Your task to perform on an android device: toggle notifications settings in the gmail app Image 0: 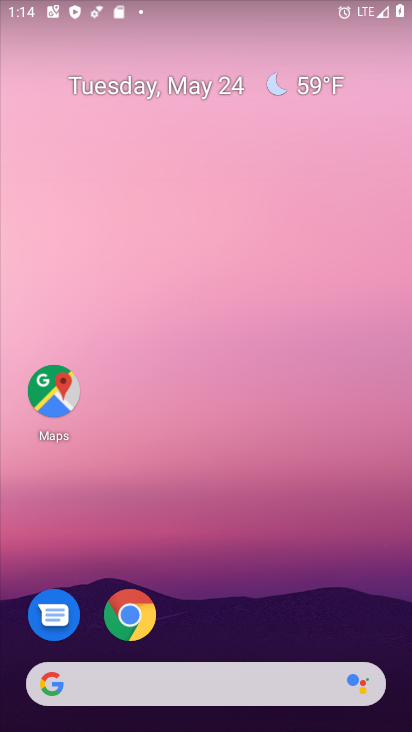
Step 0: drag from (253, 574) to (210, 5)
Your task to perform on an android device: toggle notifications settings in the gmail app Image 1: 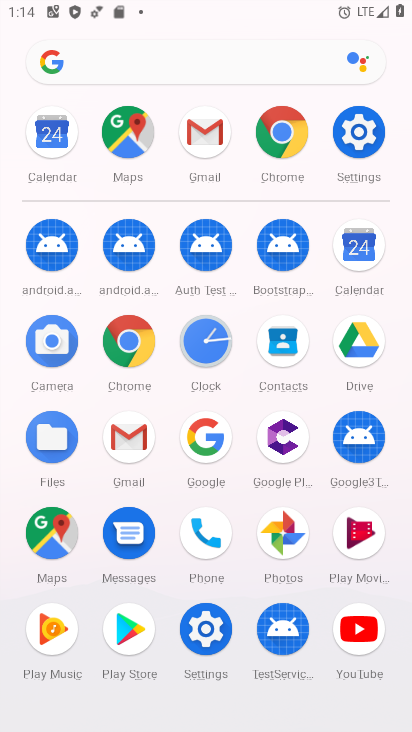
Step 1: drag from (17, 531) to (28, 158)
Your task to perform on an android device: toggle notifications settings in the gmail app Image 2: 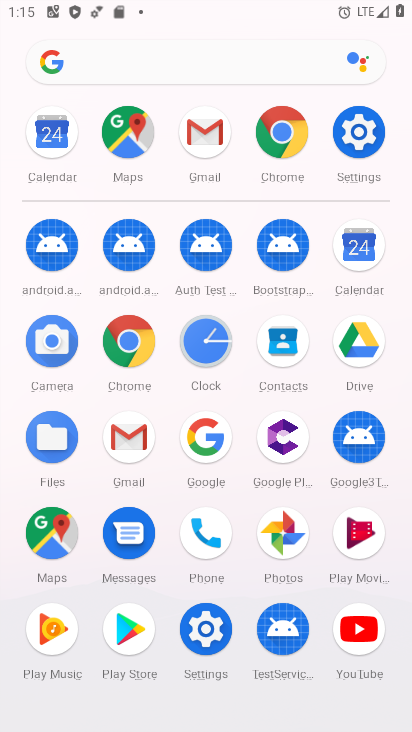
Step 2: click (124, 435)
Your task to perform on an android device: toggle notifications settings in the gmail app Image 3: 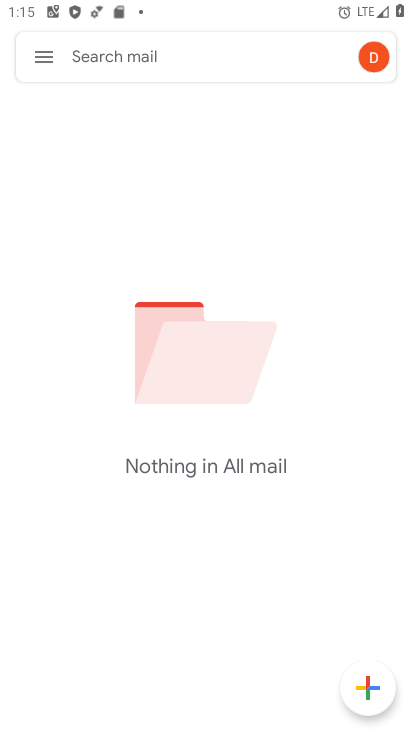
Step 3: click (41, 66)
Your task to perform on an android device: toggle notifications settings in the gmail app Image 4: 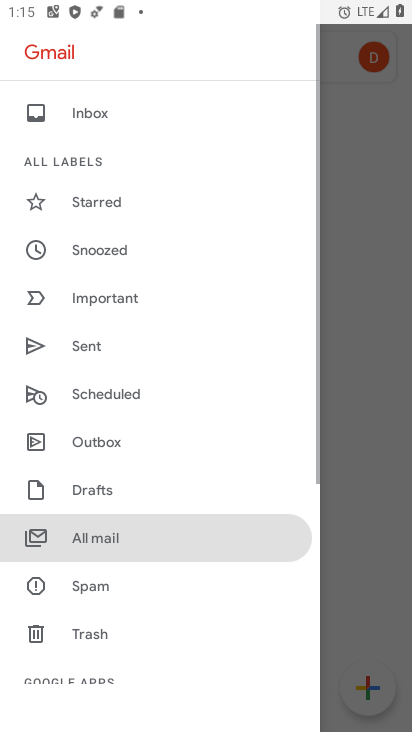
Step 4: drag from (238, 603) to (222, 76)
Your task to perform on an android device: toggle notifications settings in the gmail app Image 5: 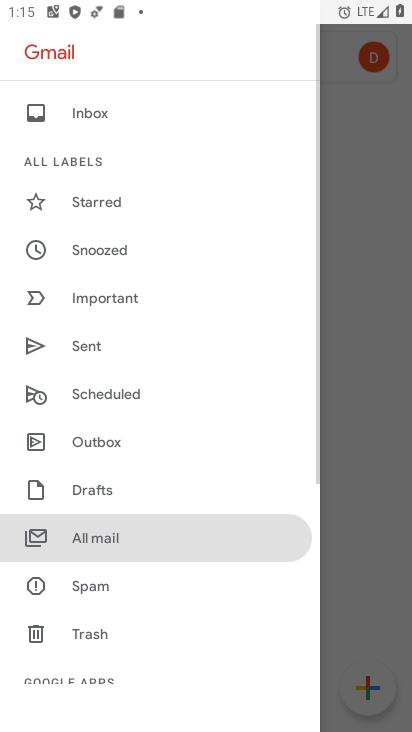
Step 5: drag from (166, 632) to (192, 233)
Your task to perform on an android device: toggle notifications settings in the gmail app Image 6: 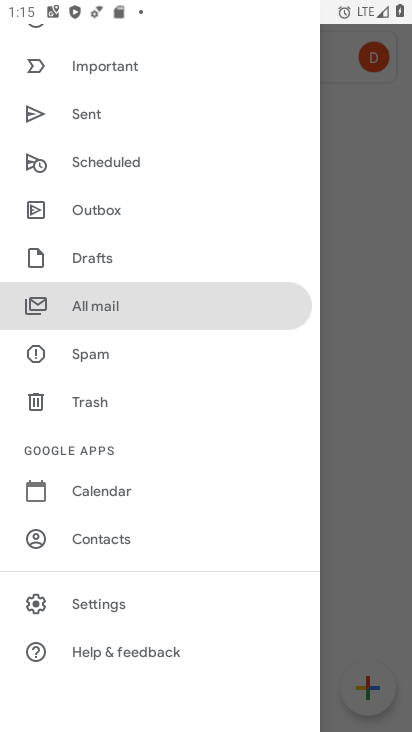
Step 6: click (112, 601)
Your task to perform on an android device: toggle notifications settings in the gmail app Image 7: 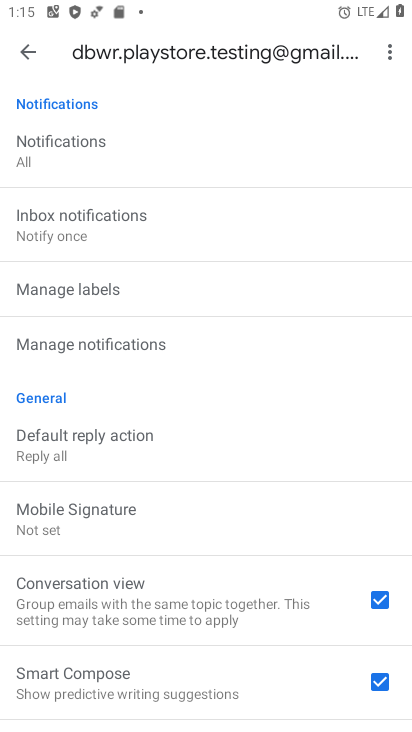
Step 7: click (138, 333)
Your task to perform on an android device: toggle notifications settings in the gmail app Image 8: 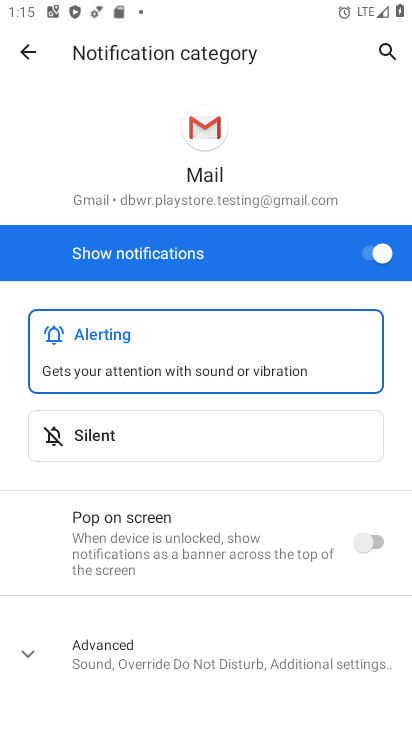
Step 8: click (366, 248)
Your task to perform on an android device: toggle notifications settings in the gmail app Image 9: 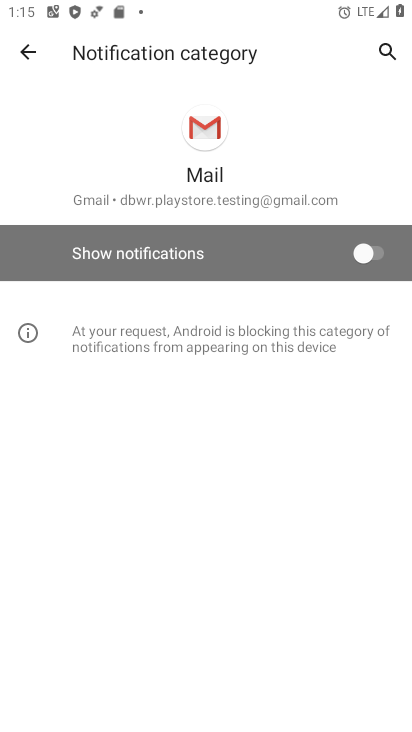
Step 9: task complete